Your task to perform on an android device: choose inbox layout in the gmail app Image 0: 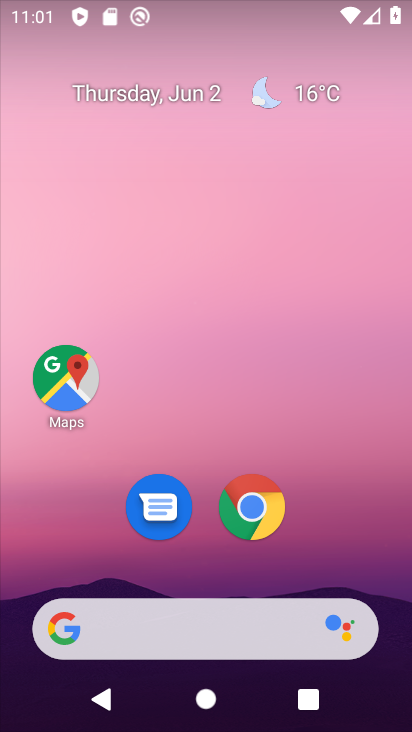
Step 0: drag from (374, 567) to (374, 213)
Your task to perform on an android device: choose inbox layout in the gmail app Image 1: 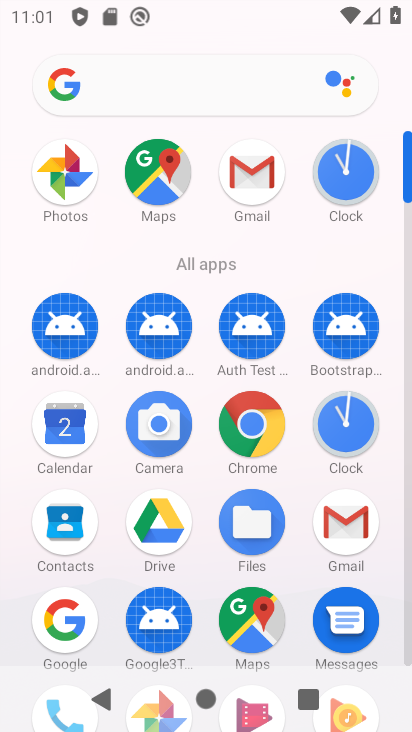
Step 1: click (332, 533)
Your task to perform on an android device: choose inbox layout in the gmail app Image 2: 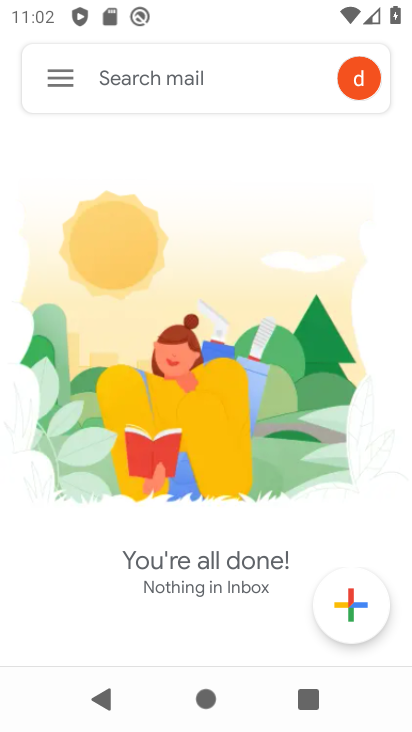
Step 2: click (43, 66)
Your task to perform on an android device: choose inbox layout in the gmail app Image 3: 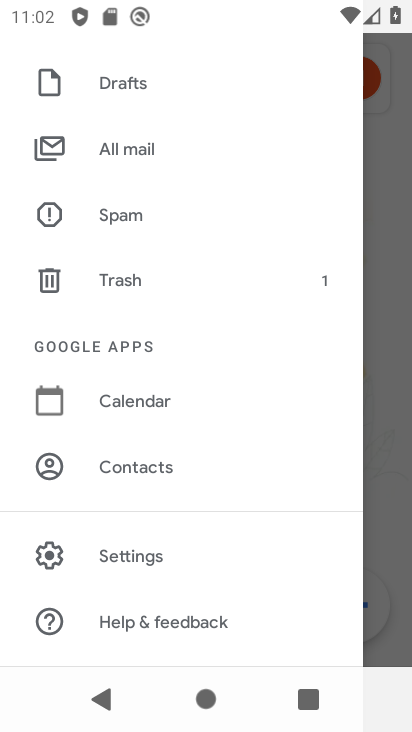
Step 3: drag from (153, 131) to (218, 562)
Your task to perform on an android device: choose inbox layout in the gmail app Image 4: 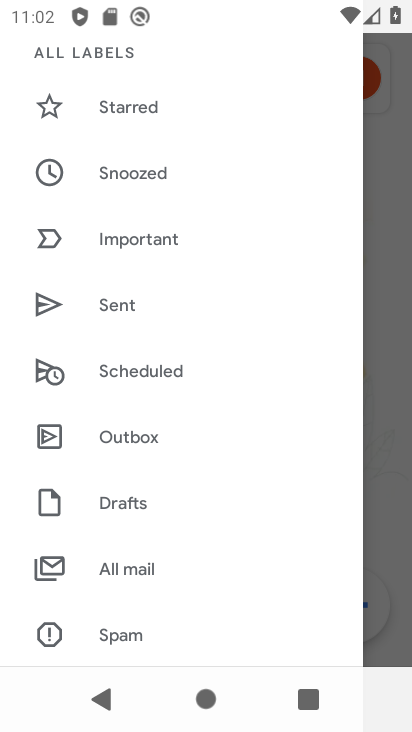
Step 4: drag from (222, 163) to (268, 503)
Your task to perform on an android device: choose inbox layout in the gmail app Image 5: 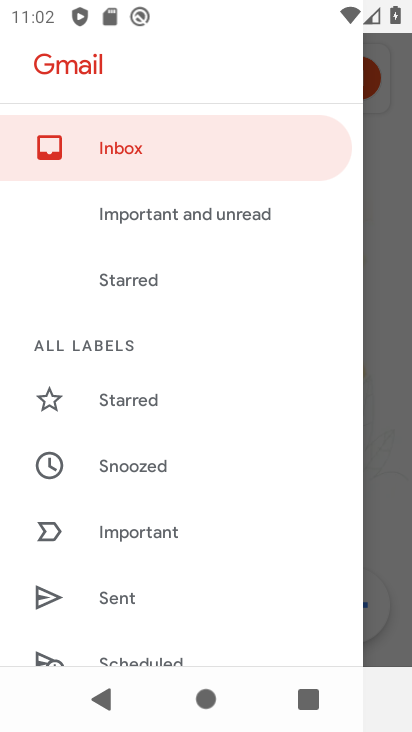
Step 5: drag from (223, 521) to (198, 168)
Your task to perform on an android device: choose inbox layout in the gmail app Image 6: 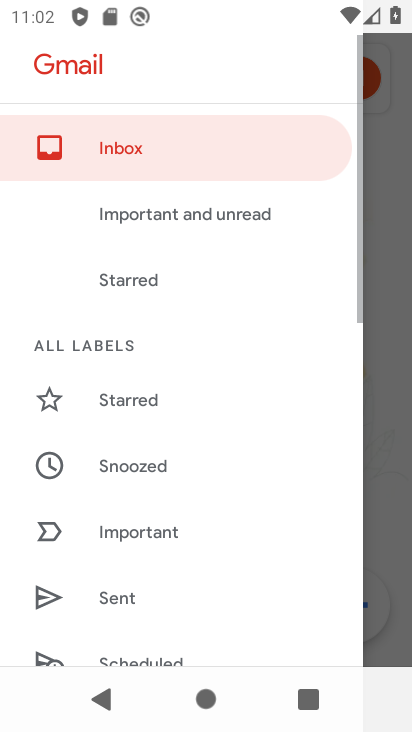
Step 6: drag from (190, 609) to (227, 288)
Your task to perform on an android device: choose inbox layout in the gmail app Image 7: 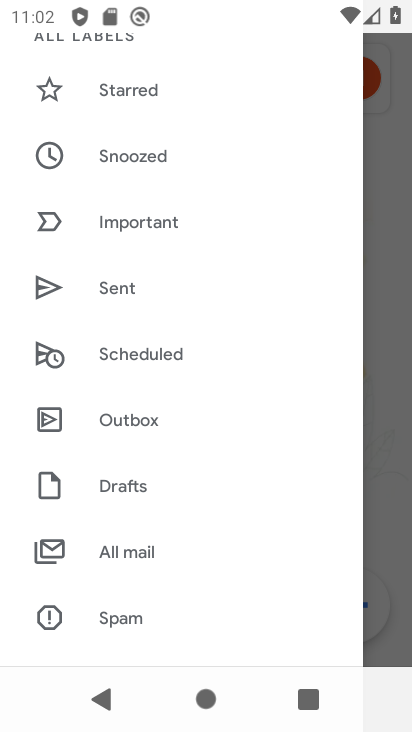
Step 7: drag from (215, 630) to (260, 219)
Your task to perform on an android device: choose inbox layout in the gmail app Image 8: 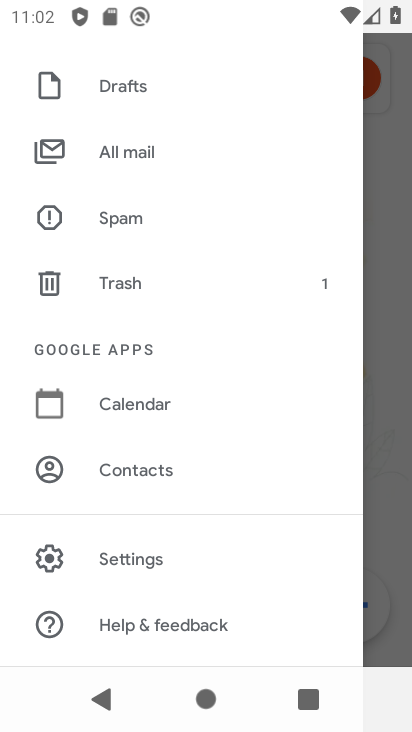
Step 8: drag from (252, 605) to (251, 237)
Your task to perform on an android device: choose inbox layout in the gmail app Image 9: 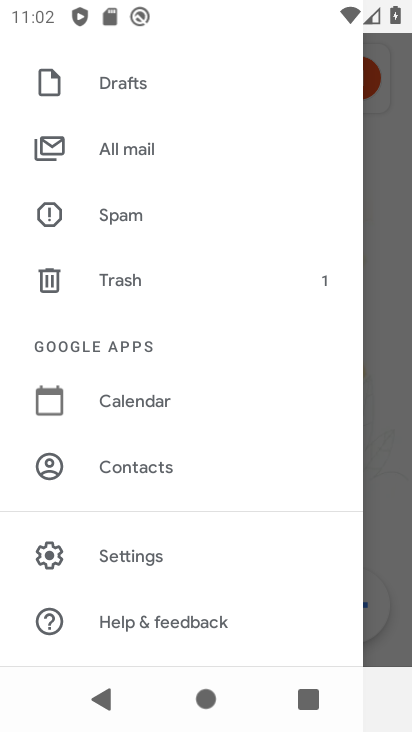
Step 9: click (153, 552)
Your task to perform on an android device: choose inbox layout in the gmail app Image 10: 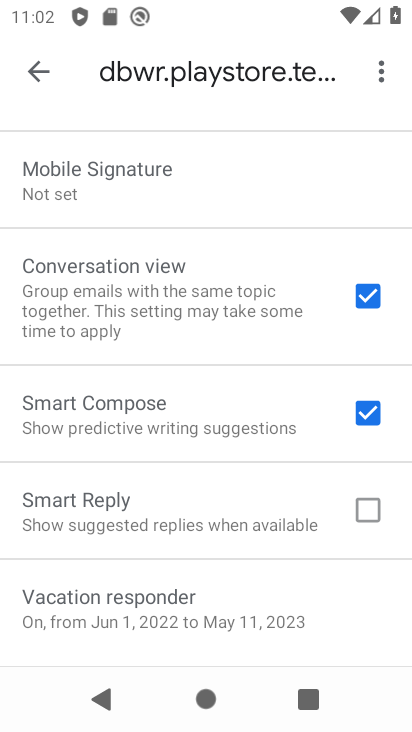
Step 10: drag from (212, 139) to (215, 613)
Your task to perform on an android device: choose inbox layout in the gmail app Image 11: 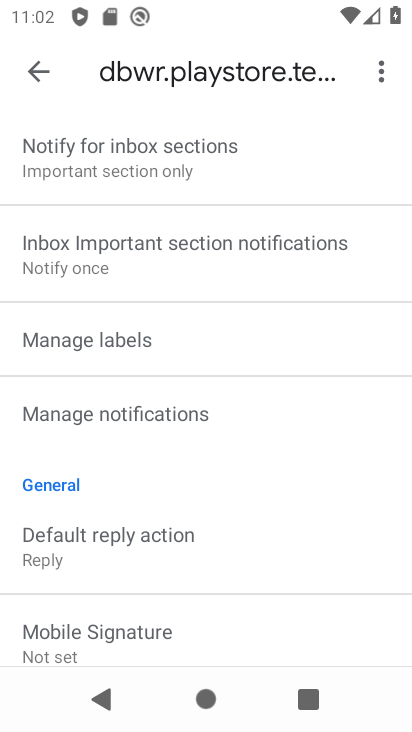
Step 11: drag from (215, 257) to (285, 559)
Your task to perform on an android device: choose inbox layout in the gmail app Image 12: 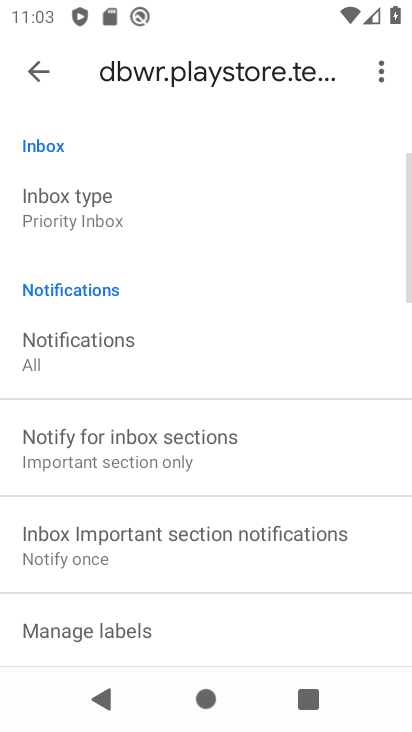
Step 12: drag from (274, 188) to (301, 584)
Your task to perform on an android device: choose inbox layout in the gmail app Image 13: 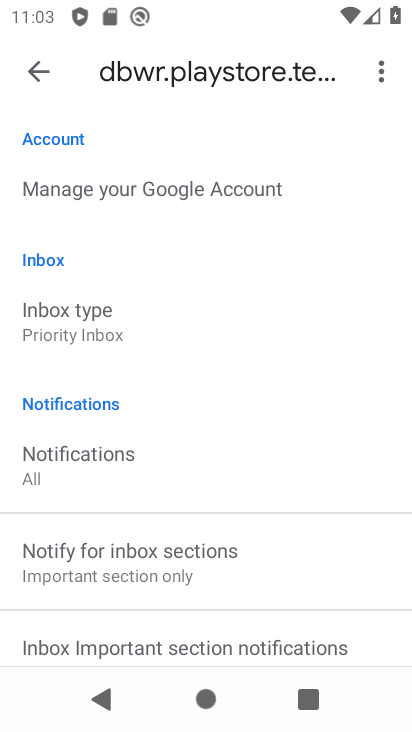
Step 13: click (132, 316)
Your task to perform on an android device: choose inbox layout in the gmail app Image 14: 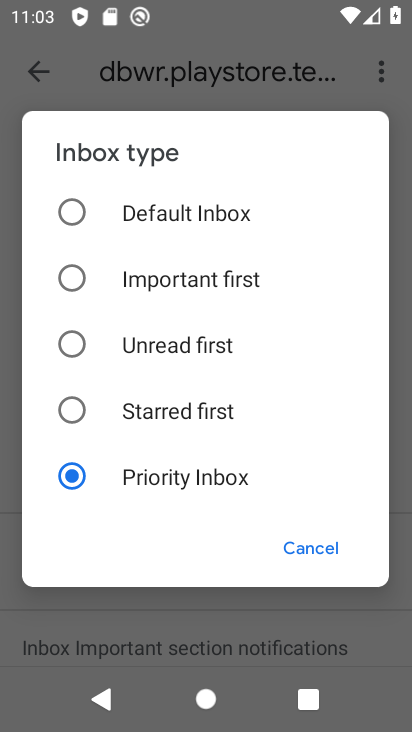
Step 14: click (62, 213)
Your task to perform on an android device: choose inbox layout in the gmail app Image 15: 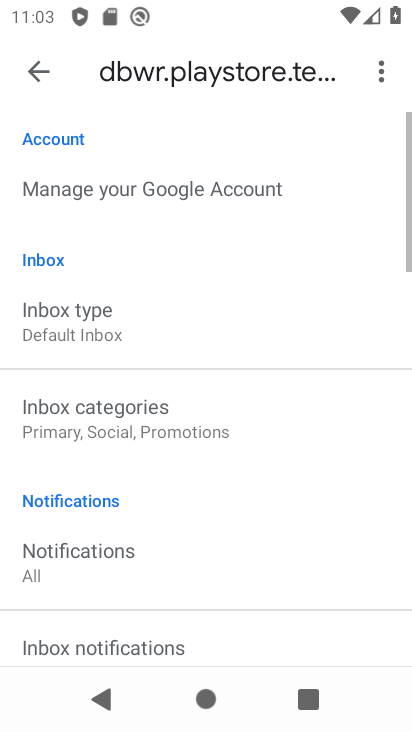
Step 15: task complete